Your task to perform on an android device: clear history in the chrome app Image 0: 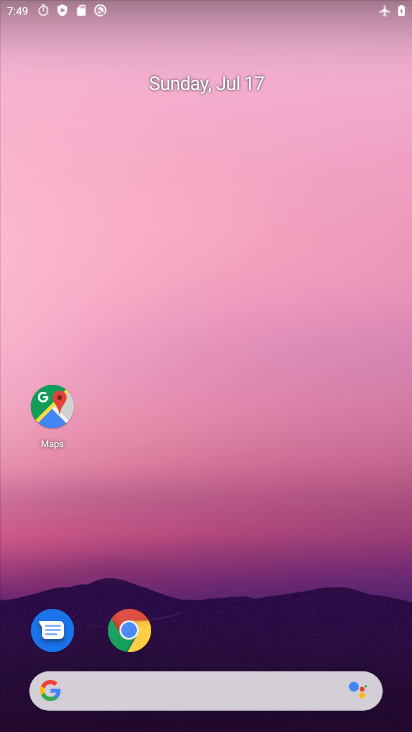
Step 0: drag from (290, 613) to (208, 1)
Your task to perform on an android device: clear history in the chrome app Image 1: 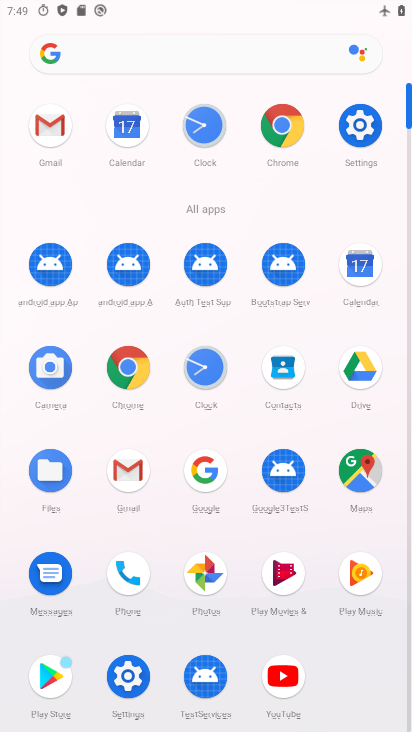
Step 1: click (287, 131)
Your task to perform on an android device: clear history in the chrome app Image 2: 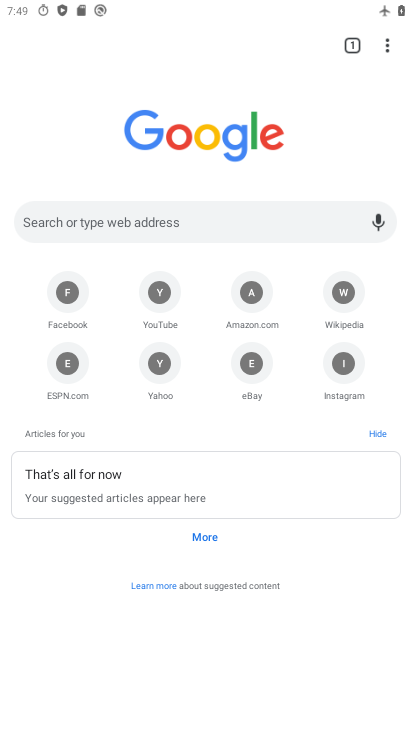
Step 2: task complete